Your task to perform on an android device: open chrome privacy settings Image 0: 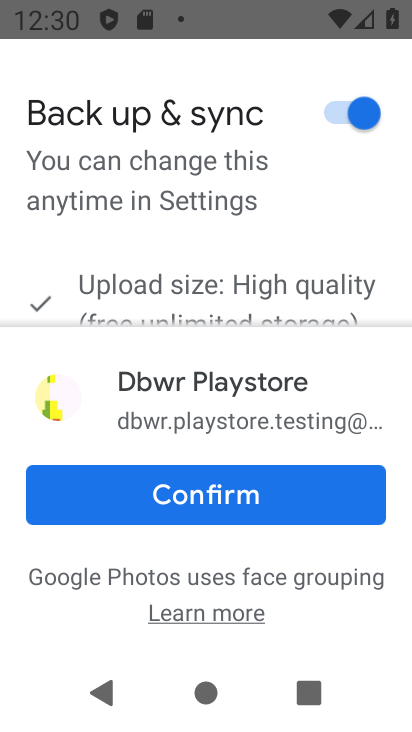
Step 0: press home button
Your task to perform on an android device: open chrome privacy settings Image 1: 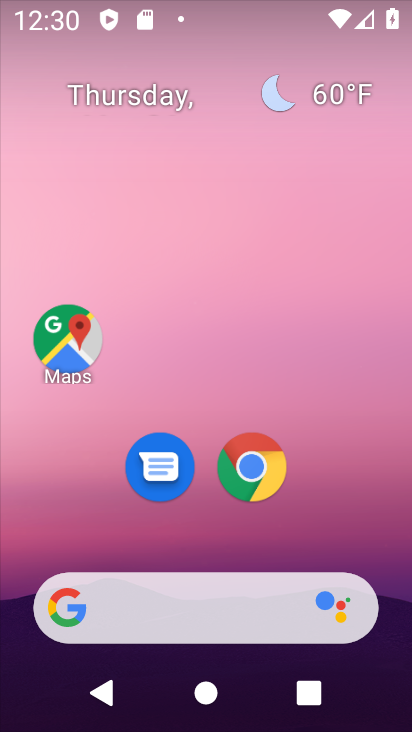
Step 1: drag from (227, 471) to (229, 111)
Your task to perform on an android device: open chrome privacy settings Image 2: 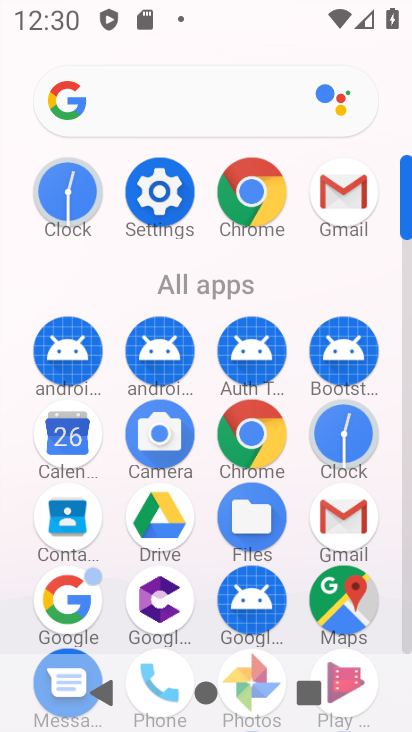
Step 2: click (255, 203)
Your task to perform on an android device: open chrome privacy settings Image 3: 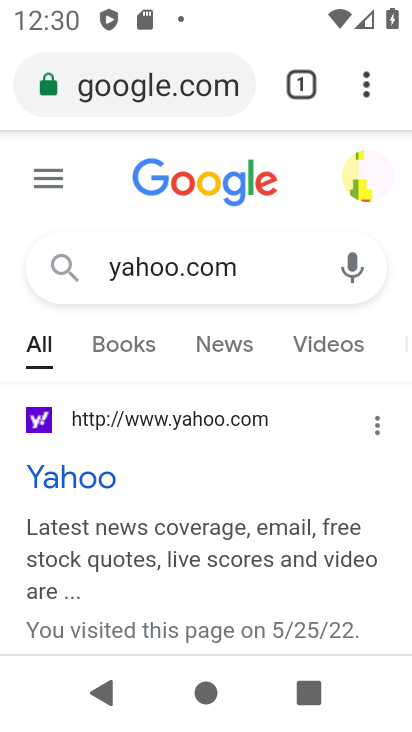
Step 3: click (371, 94)
Your task to perform on an android device: open chrome privacy settings Image 4: 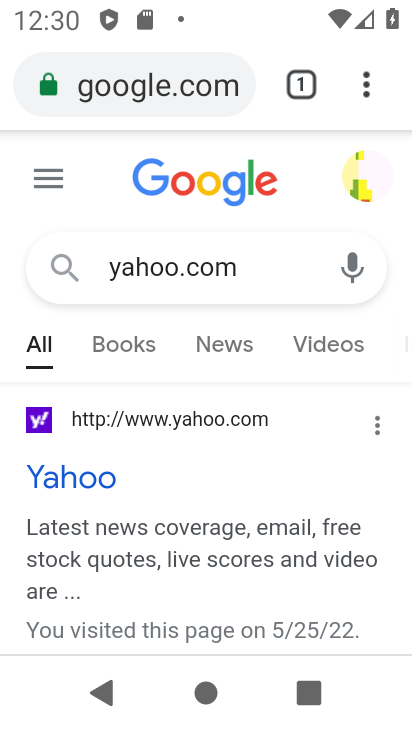
Step 4: click (360, 94)
Your task to perform on an android device: open chrome privacy settings Image 5: 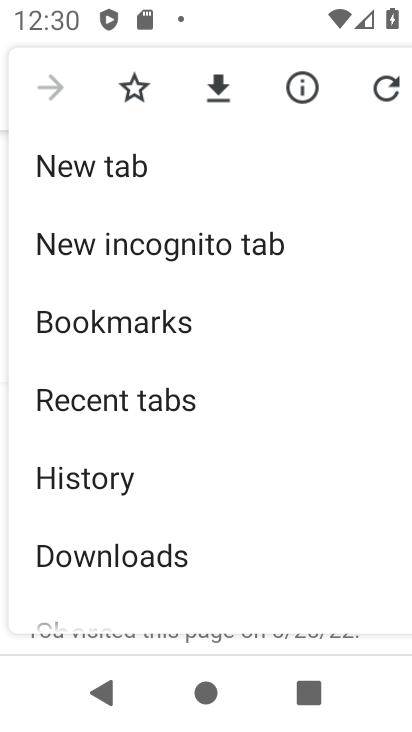
Step 5: drag from (175, 525) to (177, 255)
Your task to perform on an android device: open chrome privacy settings Image 6: 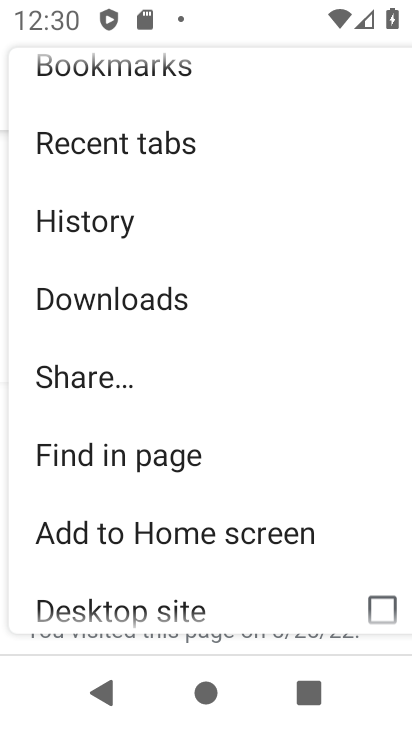
Step 6: drag from (144, 524) to (171, 317)
Your task to perform on an android device: open chrome privacy settings Image 7: 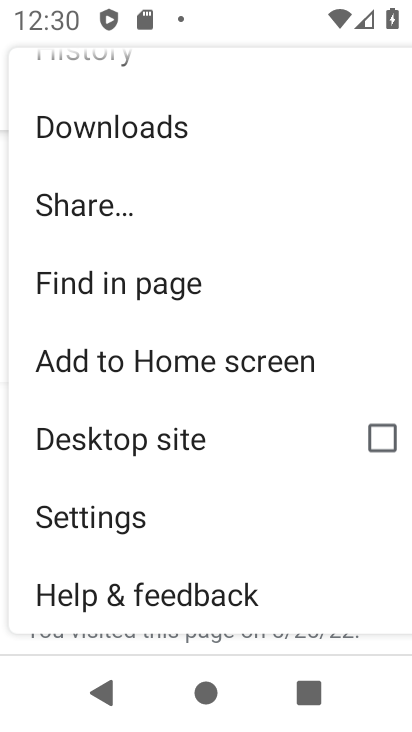
Step 7: click (116, 532)
Your task to perform on an android device: open chrome privacy settings Image 8: 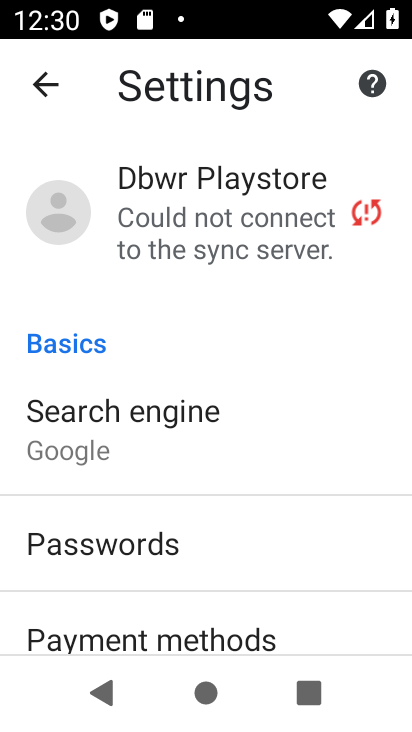
Step 8: drag from (110, 539) to (165, 281)
Your task to perform on an android device: open chrome privacy settings Image 9: 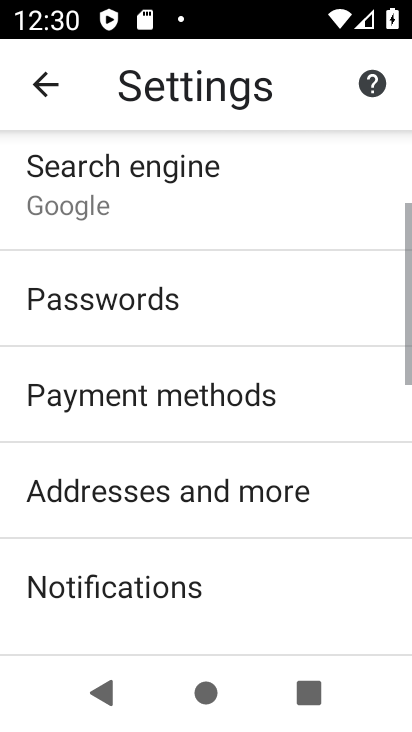
Step 9: drag from (229, 724) to (243, 429)
Your task to perform on an android device: open chrome privacy settings Image 10: 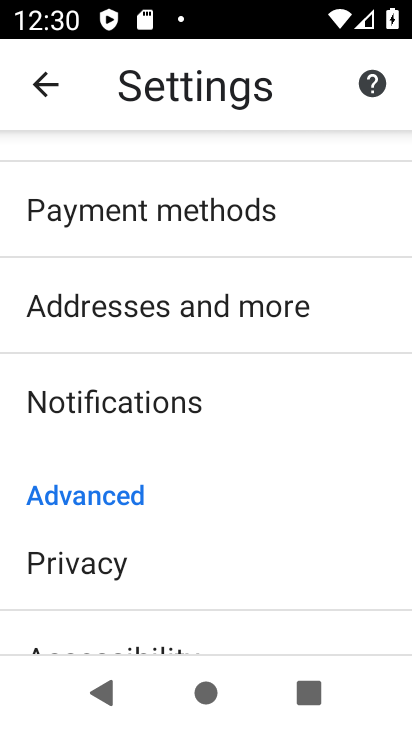
Step 10: click (99, 560)
Your task to perform on an android device: open chrome privacy settings Image 11: 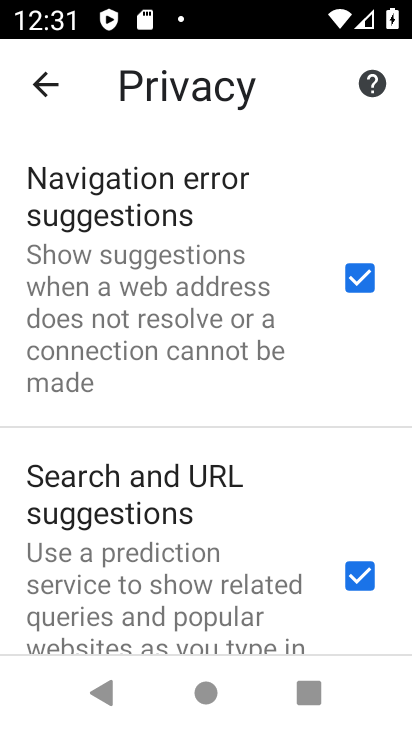
Step 11: task complete